Your task to perform on an android device: Search for the best vacuum on Walmart Image 0: 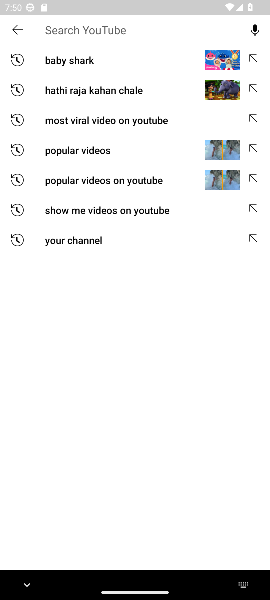
Step 0: type "the best vacuum on Walmart"
Your task to perform on an android device: Search for the best vacuum on Walmart Image 1: 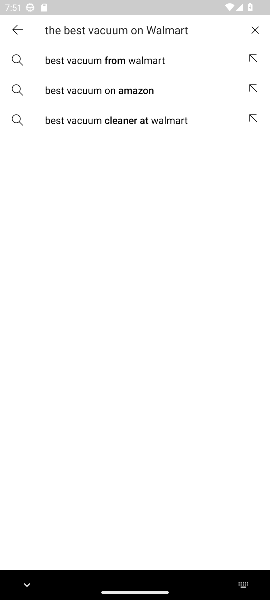
Step 1: click (78, 56)
Your task to perform on an android device: Search for the best vacuum on Walmart Image 2: 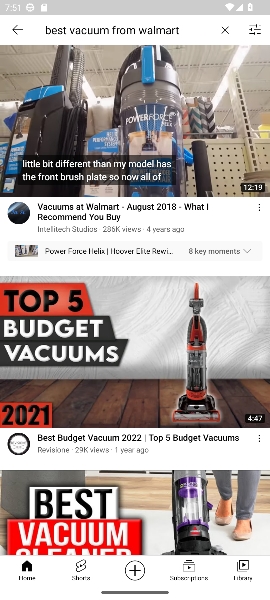
Step 2: press home button
Your task to perform on an android device: Search for the best vacuum on Walmart Image 3: 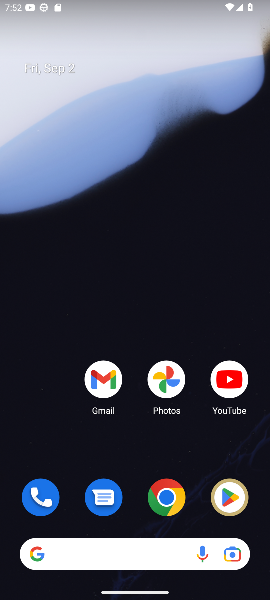
Step 3: drag from (128, 506) to (118, 106)
Your task to perform on an android device: Search for the best vacuum on Walmart Image 4: 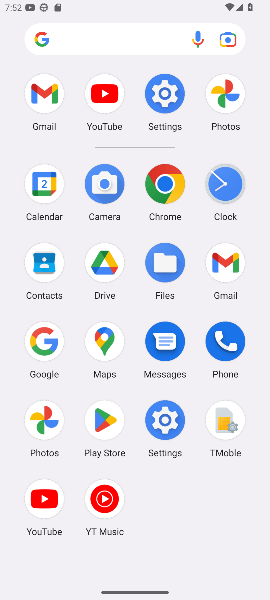
Step 4: click (51, 347)
Your task to perform on an android device: Search for the best vacuum on Walmart Image 5: 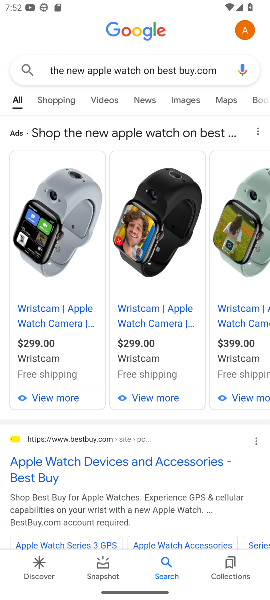
Step 5: click (210, 72)
Your task to perform on an android device: Search for the best vacuum on Walmart Image 6: 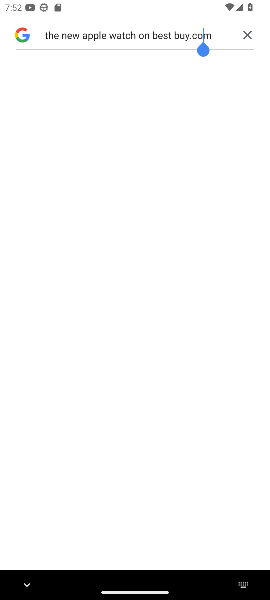
Step 6: click (247, 32)
Your task to perform on an android device: Search for the best vacuum on Walmart Image 7: 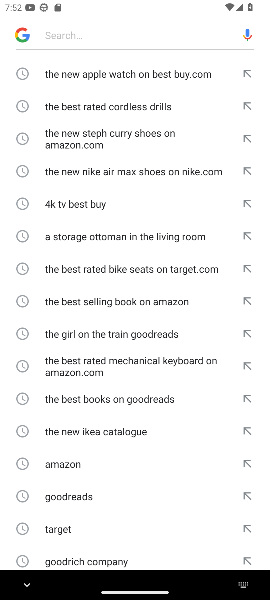
Step 7: type "the best vacuum on Walmart"
Your task to perform on an android device: Search for the best vacuum on Walmart Image 8: 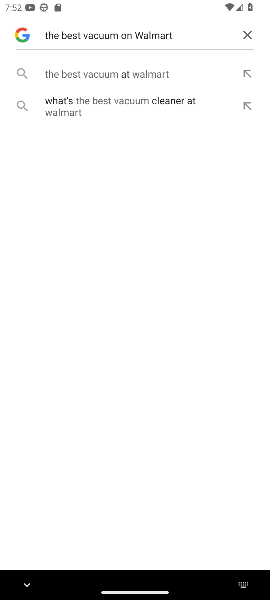
Step 8: click (166, 74)
Your task to perform on an android device: Search for the best vacuum on Walmart Image 9: 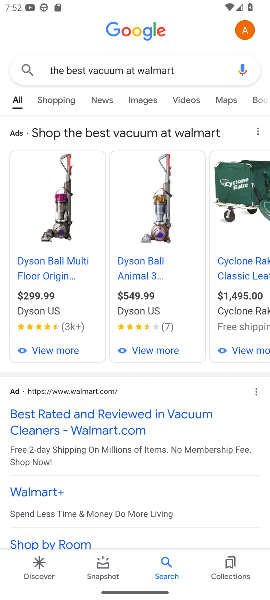
Step 9: task complete